Your task to perform on an android device: Open Google Image 0: 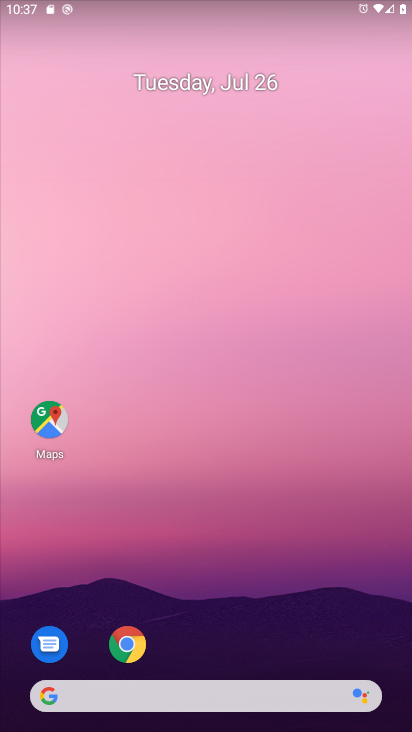
Step 0: click (50, 701)
Your task to perform on an android device: Open Google Image 1: 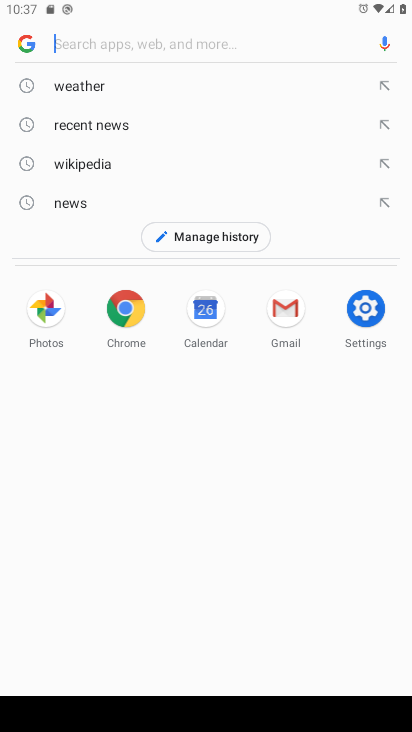
Step 1: click (26, 46)
Your task to perform on an android device: Open Google Image 2: 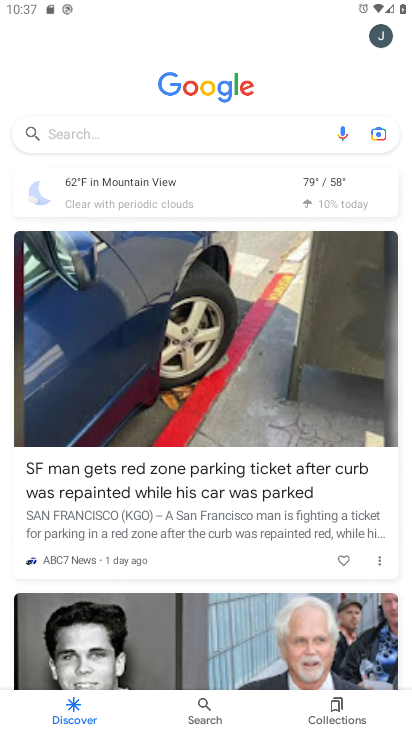
Step 2: task complete